Your task to perform on an android device: Install the Instagram app Image 0: 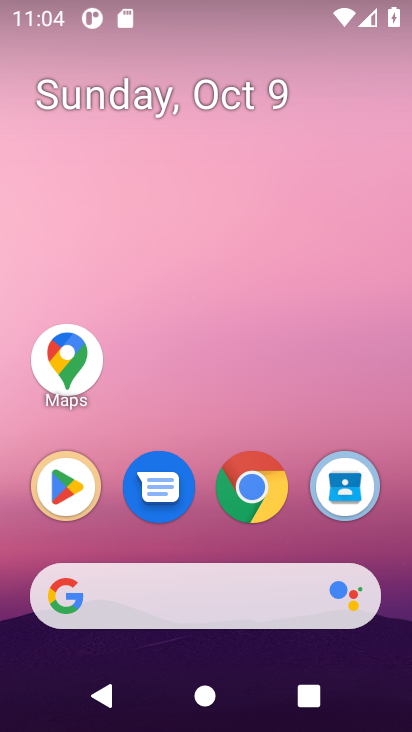
Step 0: click (77, 497)
Your task to perform on an android device: Install the Instagram app Image 1: 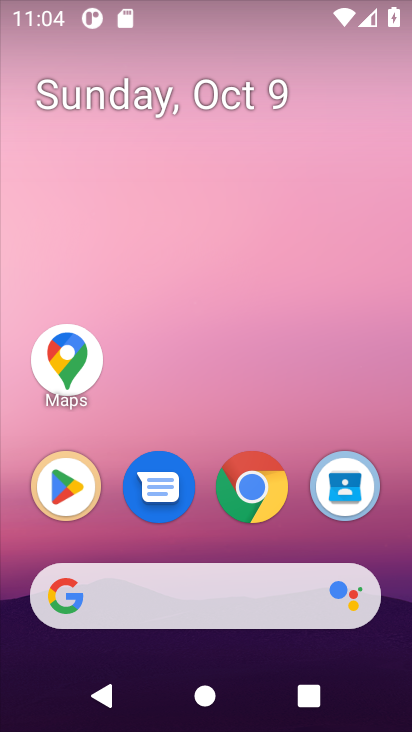
Step 1: click (51, 471)
Your task to perform on an android device: Install the Instagram app Image 2: 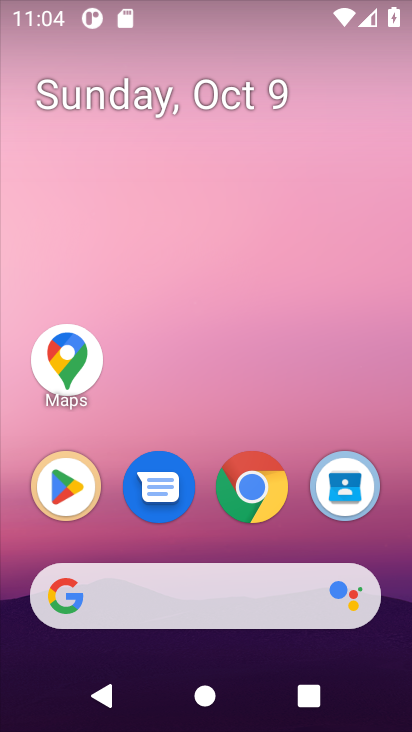
Step 2: click (89, 498)
Your task to perform on an android device: Install the Instagram app Image 3: 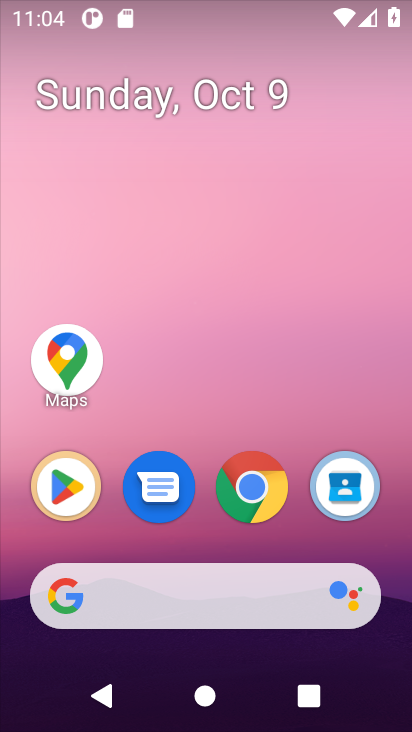
Step 3: task complete